Your task to perform on an android device: see sites visited before in the chrome app Image 0: 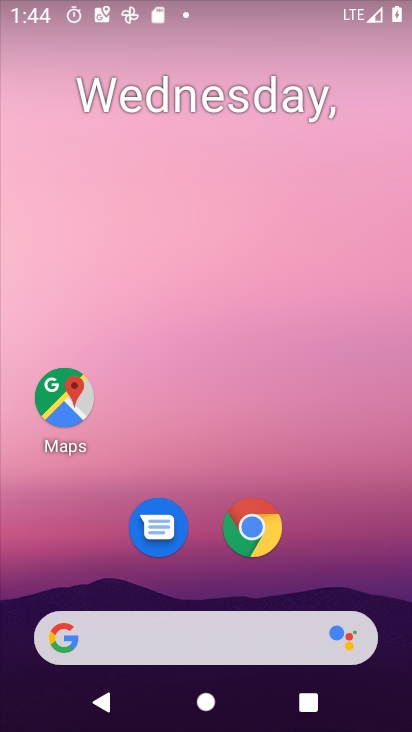
Step 0: drag from (236, 623) to (408, 330)
Your task to perform on an android device: see sites visited before in the chrome app Image 1: 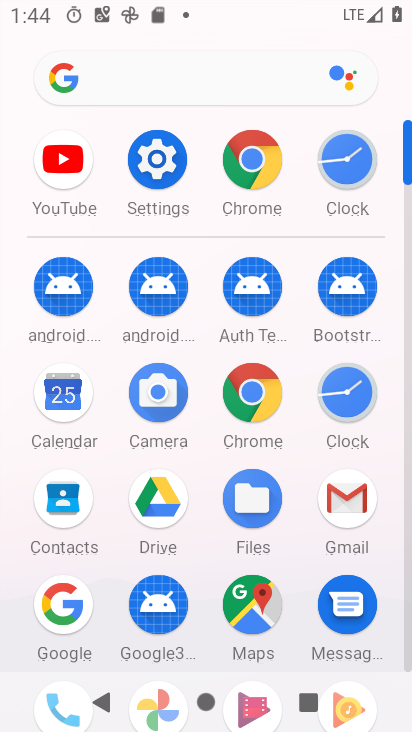
Step 1: click (245, 381)
Your task to perform on an android device: see sites visited before in the chrome app Image 2: 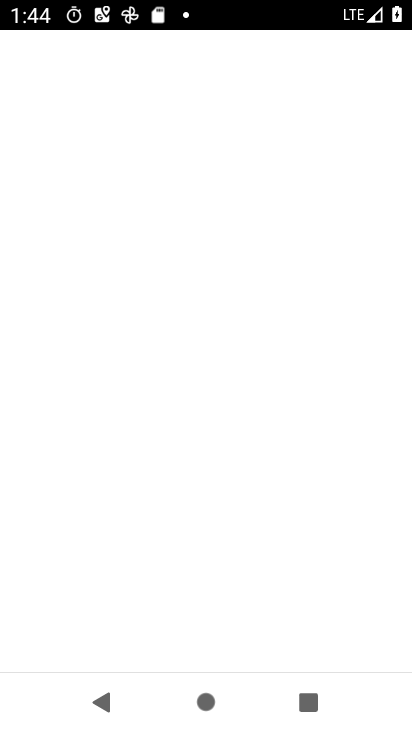
Step 2: click (252, 382)
Your task to perform on an android device: see sites visited before in the chrome app Image 3: 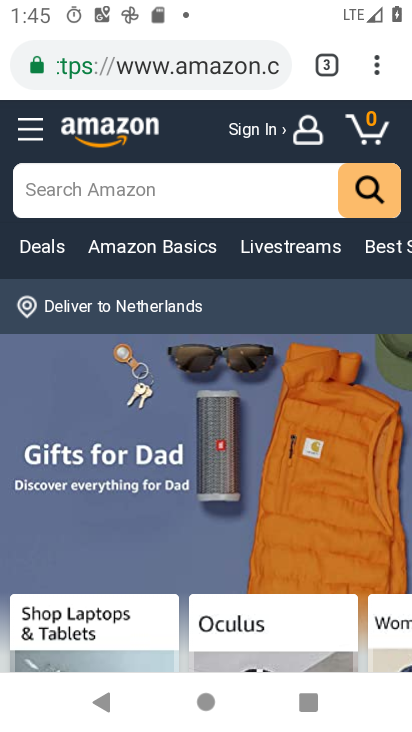
Step 3: click (371, 76)
Your task to perform on an android device: see sites visited before in the chrome app Image 4: 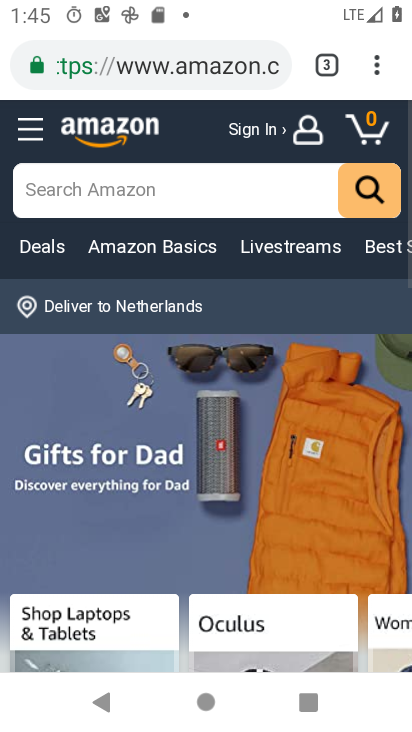
Step 4: drag from (385, 53) to (178, 309)
Your task to perform on an android device: see sites visited before in the chrome app Image 5: 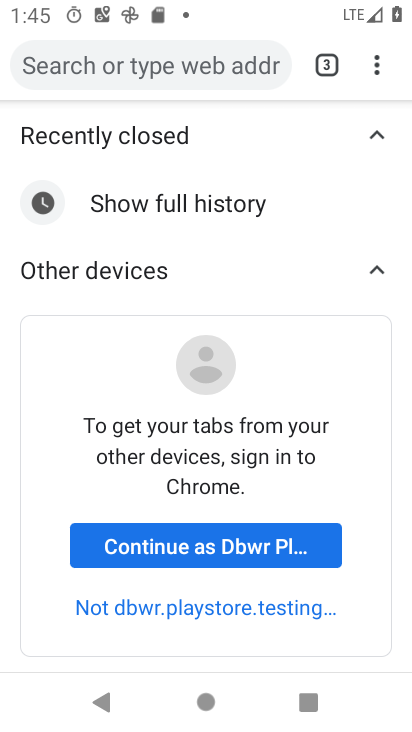
Step 5: click (178, 309)
Your task to perform on an android device: see sites visited before in the chrome app Image 6: 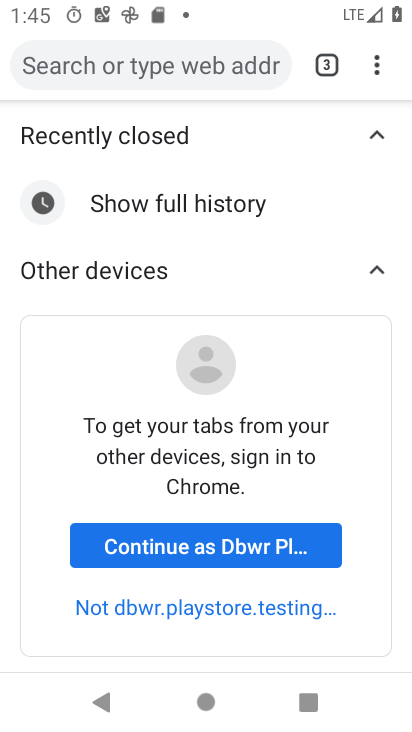
Step 6: task complete